Your task to perform on an android device: set the stopwatch Image 0: 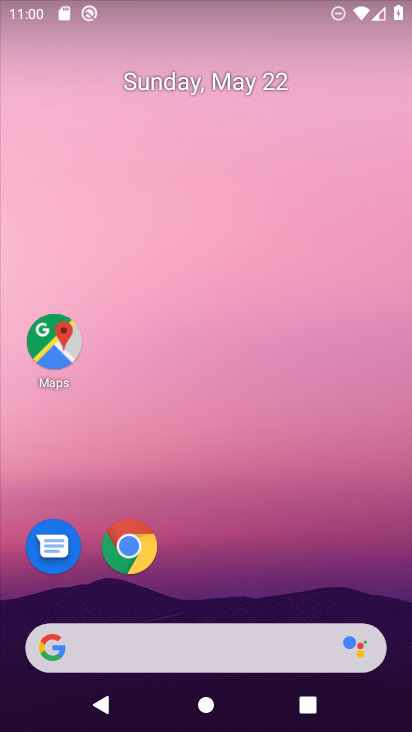
Step 0: drag from (192, 611) to (270, 16)
Your task to perform on an android device: set the stopwatch Image 1: 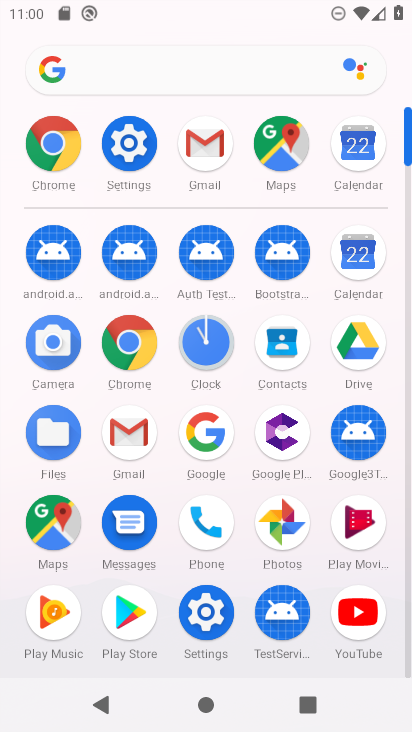
Step 1: click (210, 359)
Your task to perform on an android device: set the stopwatch Image 2: 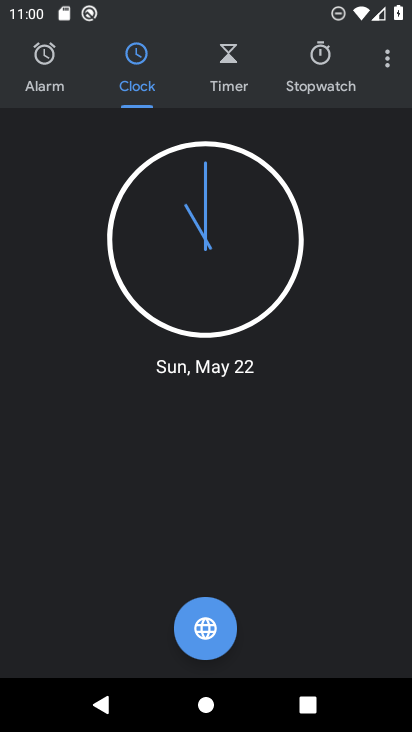
Step 2: click (328, 81)
Your task to perform on an android device: set the stopwatch Image 3: 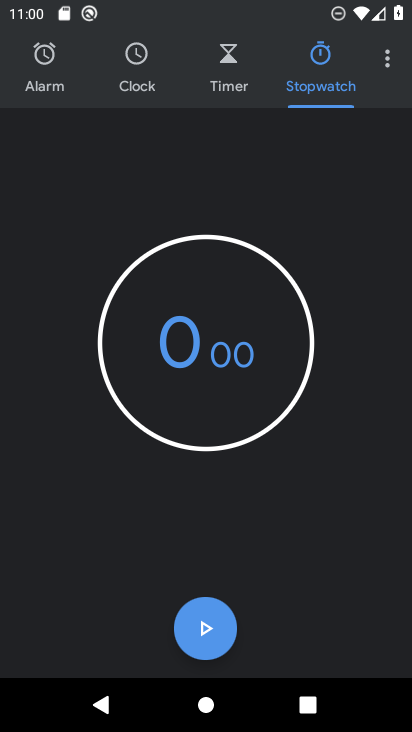
Step 3: click (204, 625)
Your task to perform on an android device: set the stopwatch Image 4: 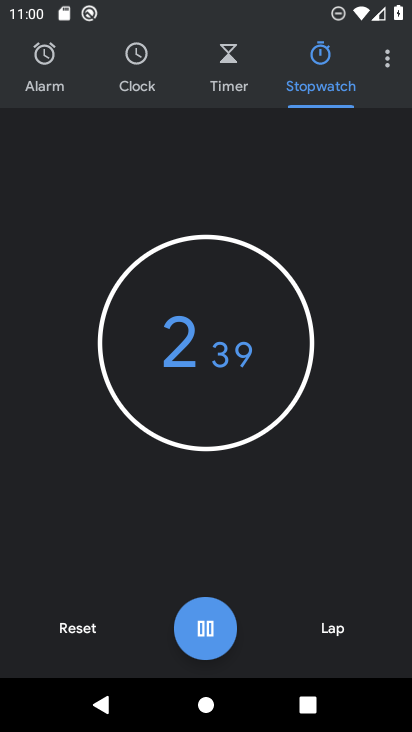
Step 4: task complete